Your task to perform on an android device: turn off location Image 0: 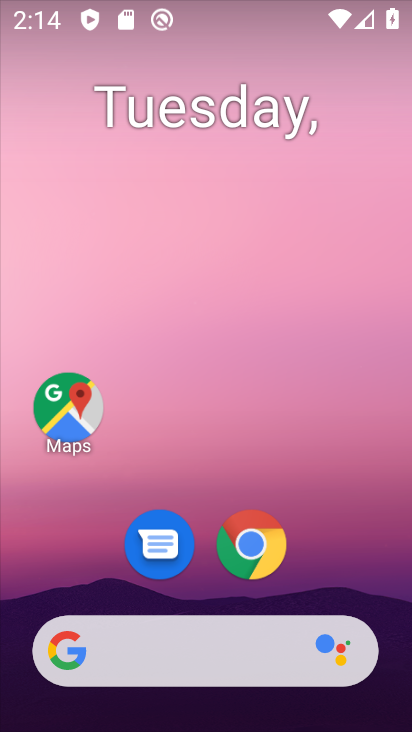
Step 0: drag from (190, 609) to (264, 156)
Your task to perform on an android device: turn off location Image 1: 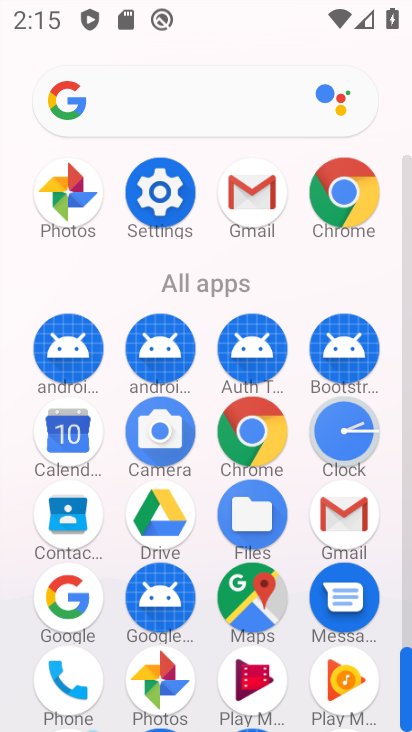
Step 1: drag from (190, 656) to (230, 417)
Your task to perform on an android device: turn off location Image 2: 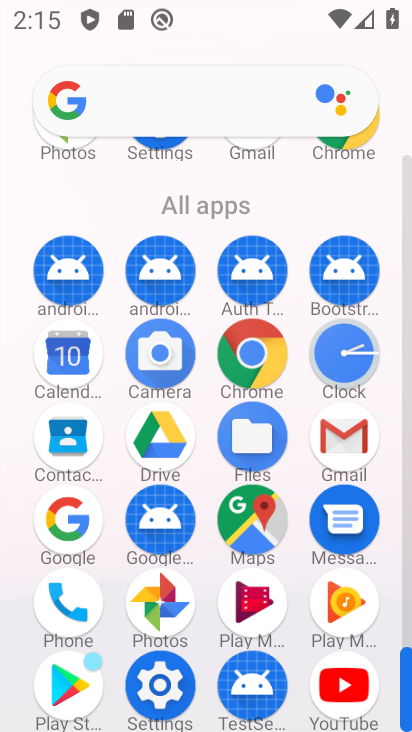
Step 2: click (170, 700)
Your task to perform on an android device: turn off location Image 3: 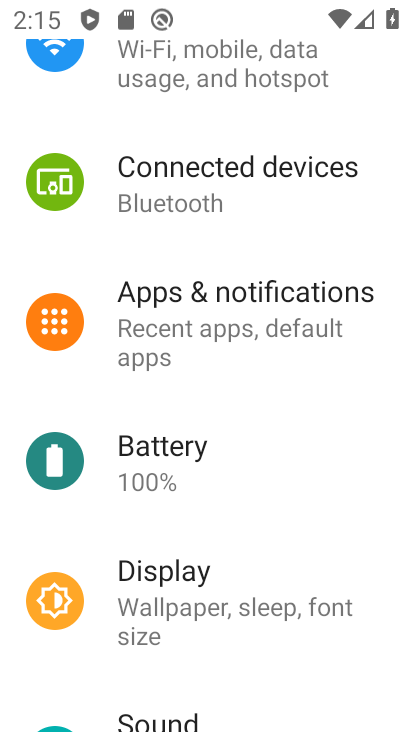
Step 3: drag from (185, 706) to (236, 392)
Your task to perform on an android device: turn off location Image 4: 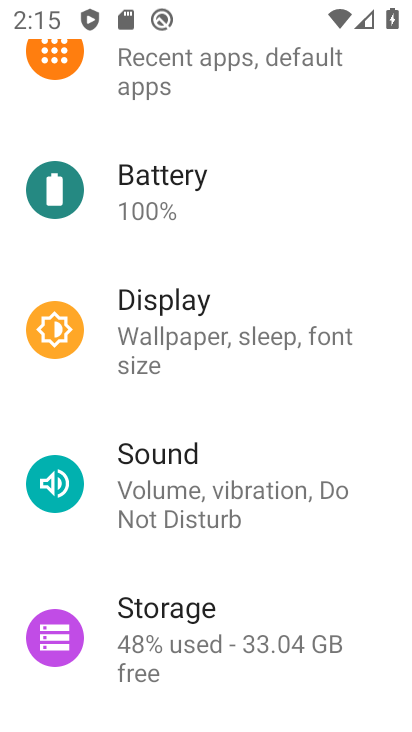
Step 4: drag from (187, 641) to (232, 326)
Your task to perform on an android device: turn off location Image 5: 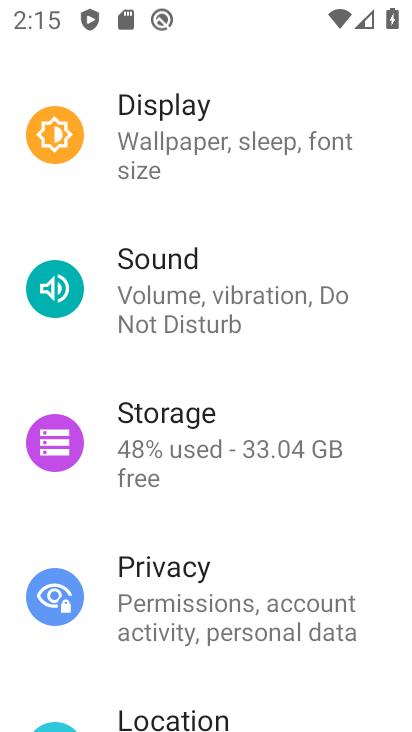
Step 5: click (208, 703)
Your task to perform on an android device: turn off location Image 6: 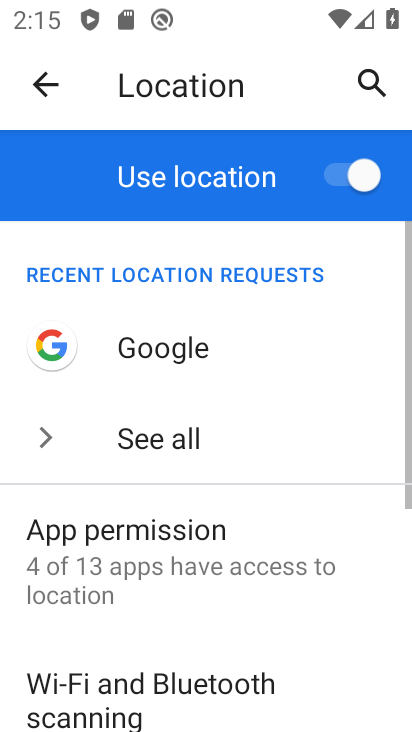
Step 6: click (340, 170)
Your task to perform on an android device: turn off location Image 7: 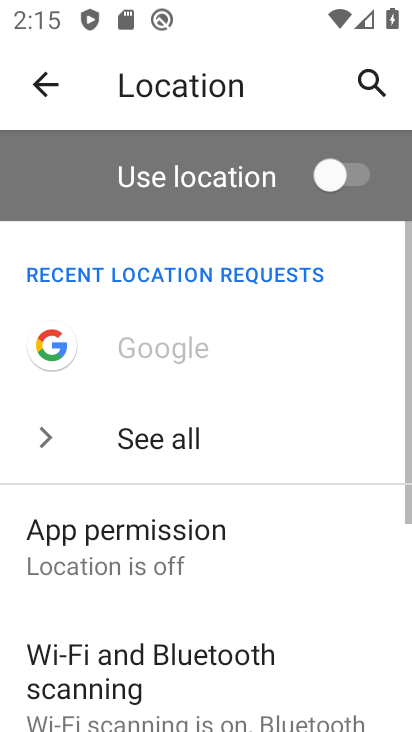
Step 7: task complete